Your task to perform on an android device: open chrome and create a bookmark for the current page Image 0: 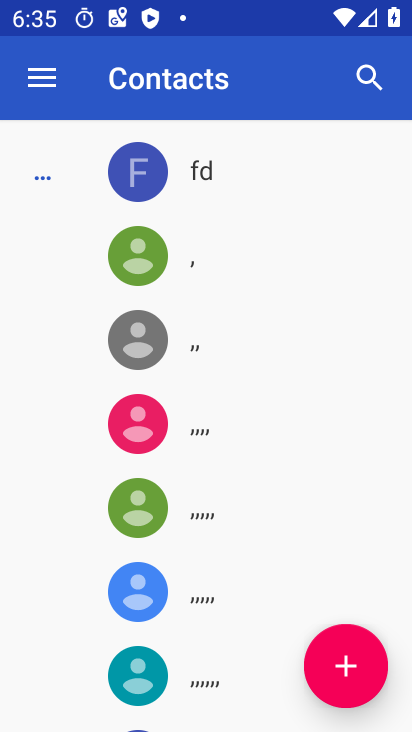
Step 0: press home button
Your task to perform on an android device: open chrome and create a bookmark for the current page Image 1: 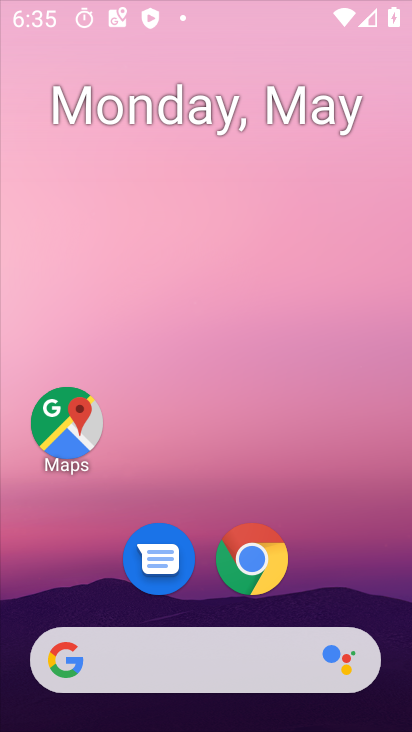
Step 1: drag from (391, 651) to (332, 31)
Your task to perform on an android device: open chrome and create a bookmark for the current page Image 2: 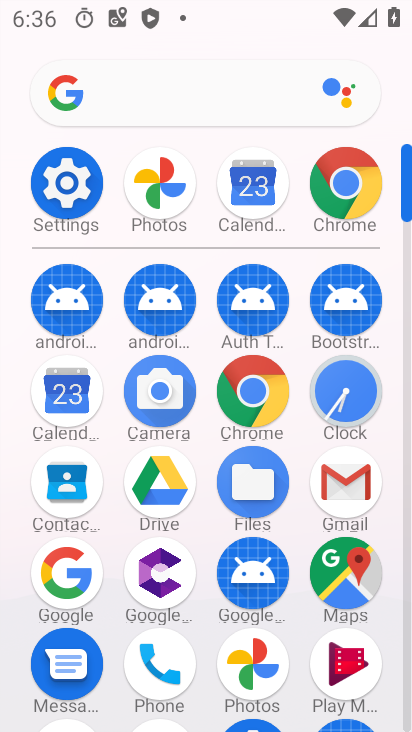
Step 2: click (364, 203)
Your task to perform on an android device: open chrome and create a bookmark for the current page Image 3: 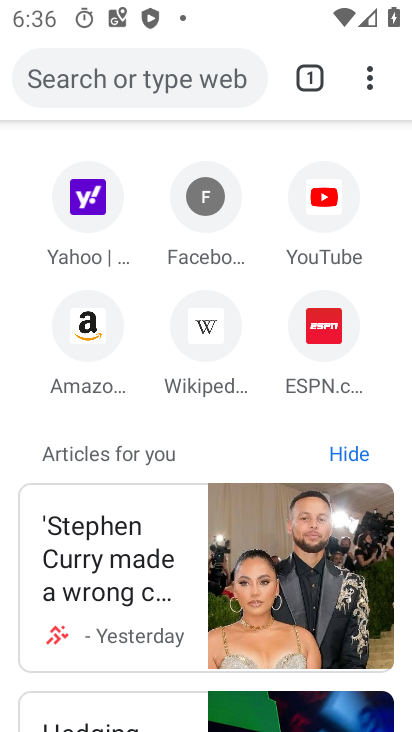
Step 3: click (371, 76)
Your task to perform on an android device: open chrome and create a bookmark for the current page Image 4: 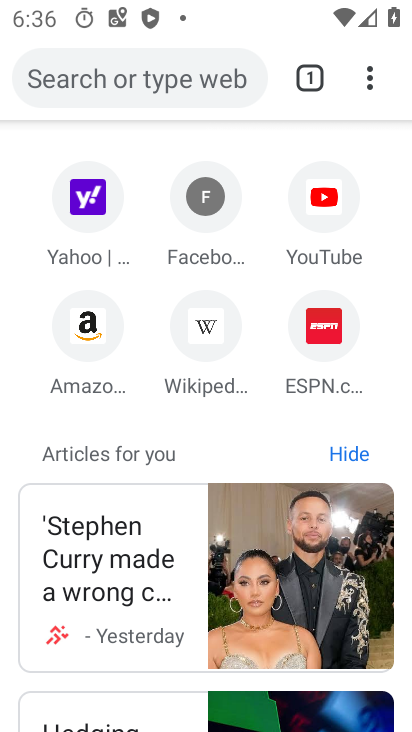
Step 4: click (371, 63)
Your task to perform on an android device: open chrome and create a bookmark for the current page Image 5: 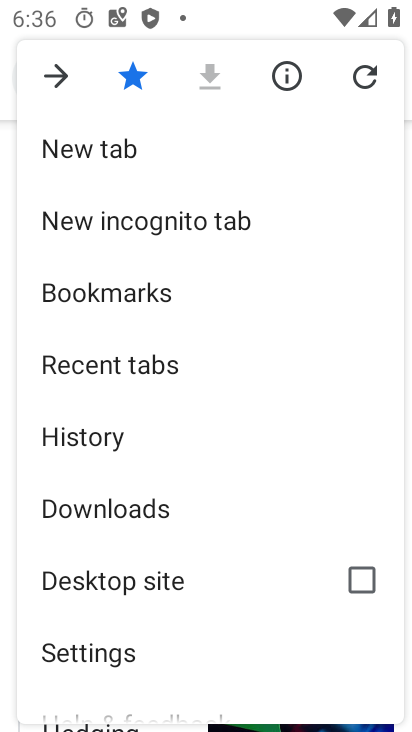
Step 5: task complete